Your task to perform on an android device: open app "HBO Max: Stream TV & Movies" Image 0: 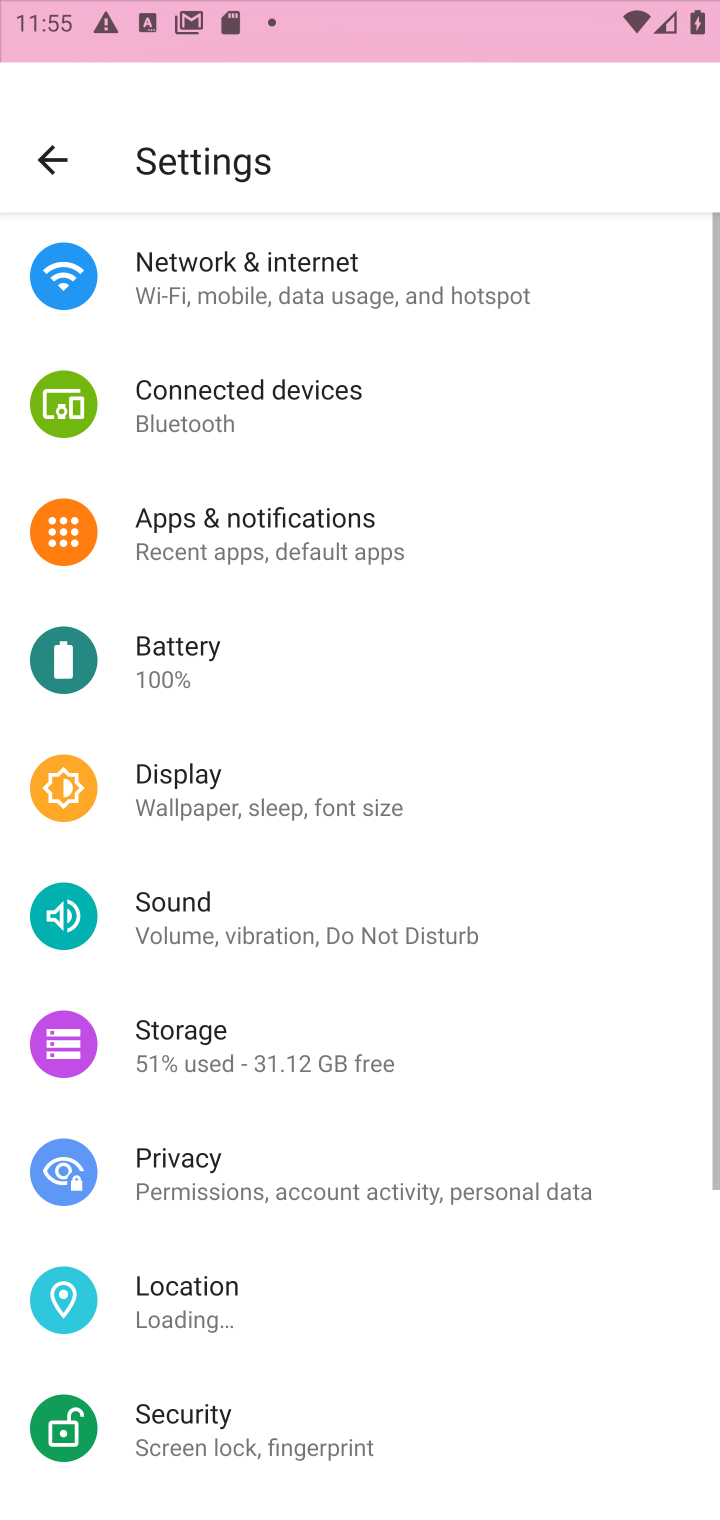
Step 0: click (549, 86)
Your task to perform on an android device: open app "HBO Max: Stream TV & Movies" Image 1: 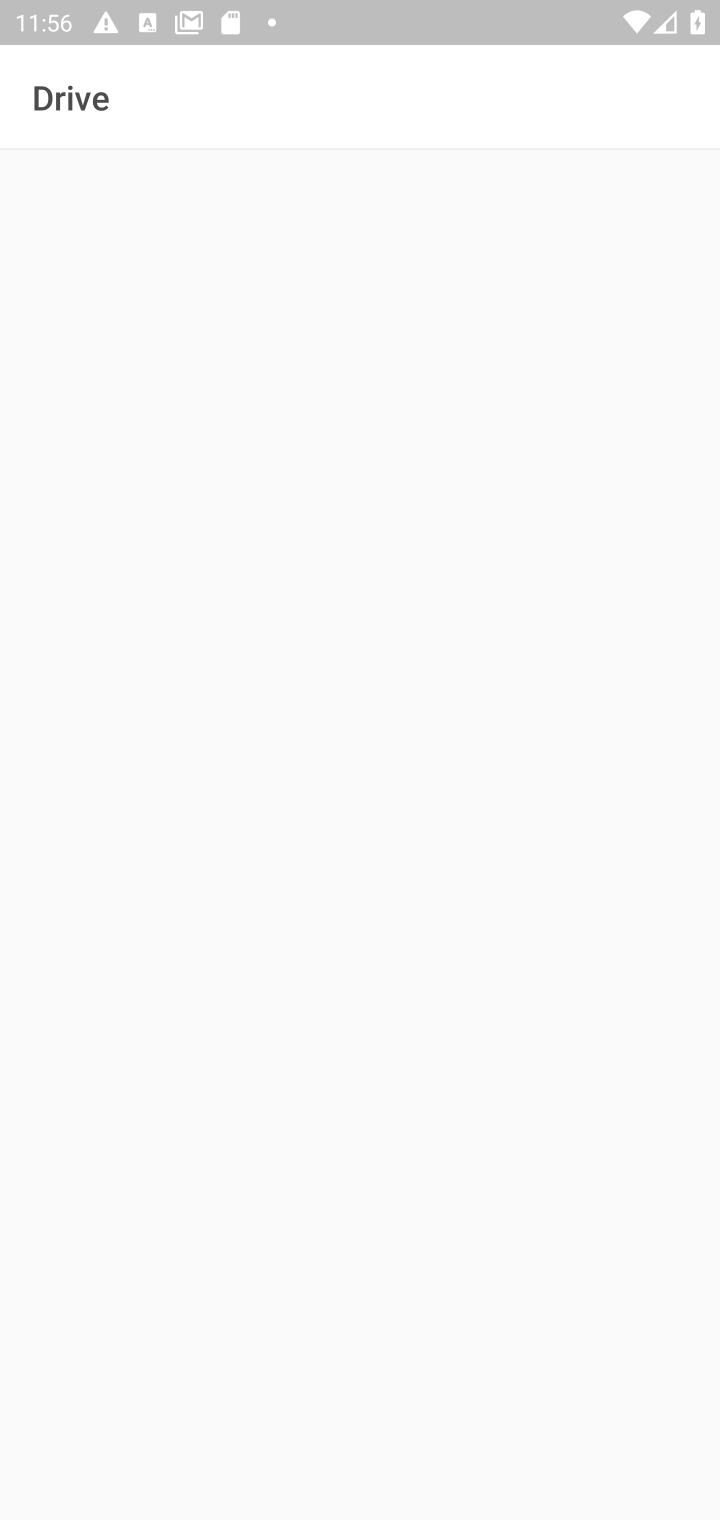
Step 1: press home button
Your task to perform on an android device: open app "HBO Max: Stream TV & Movies" Image 2: 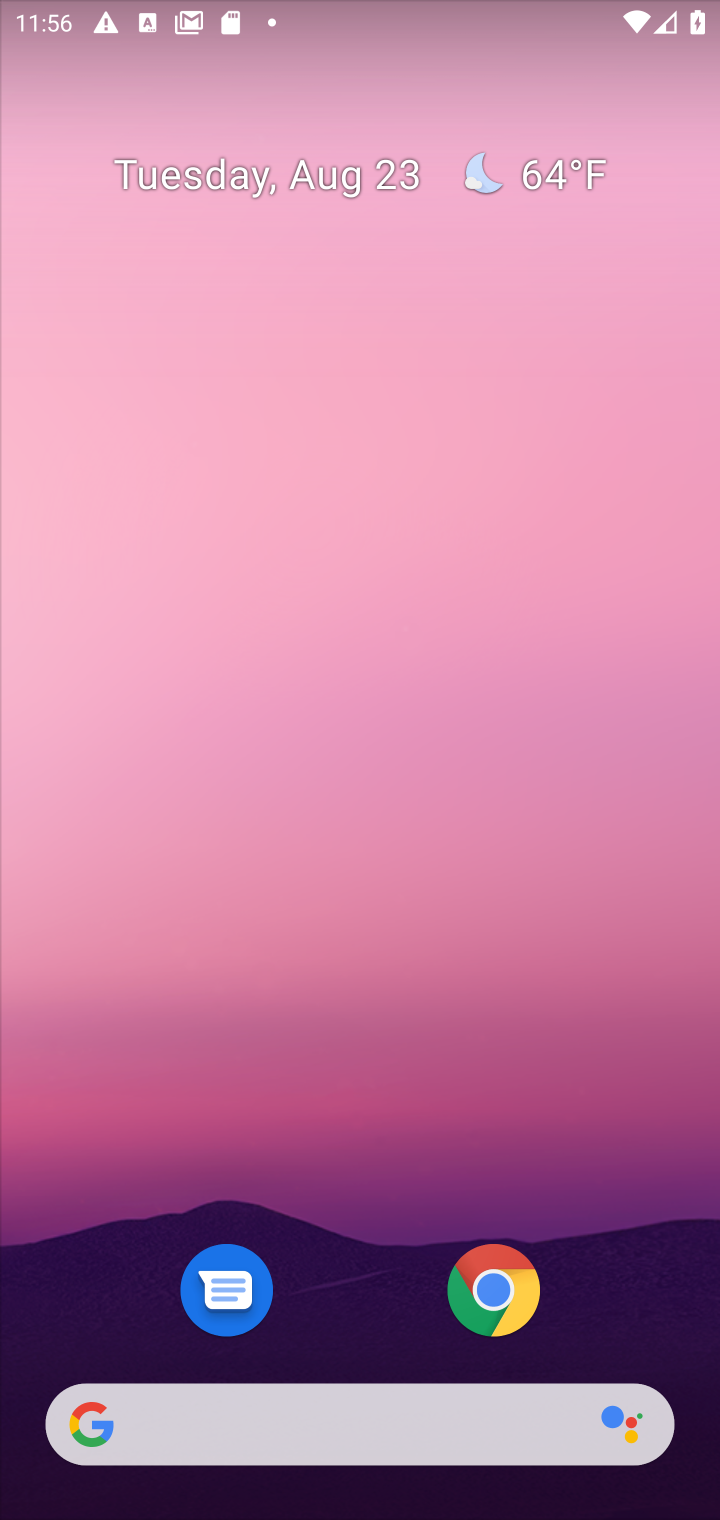
Step 2: drag from (386, 1330) to (331, 261)
Your task to perform on an android device: open app "HBO Max: Stream TV & Movies" Image 3: 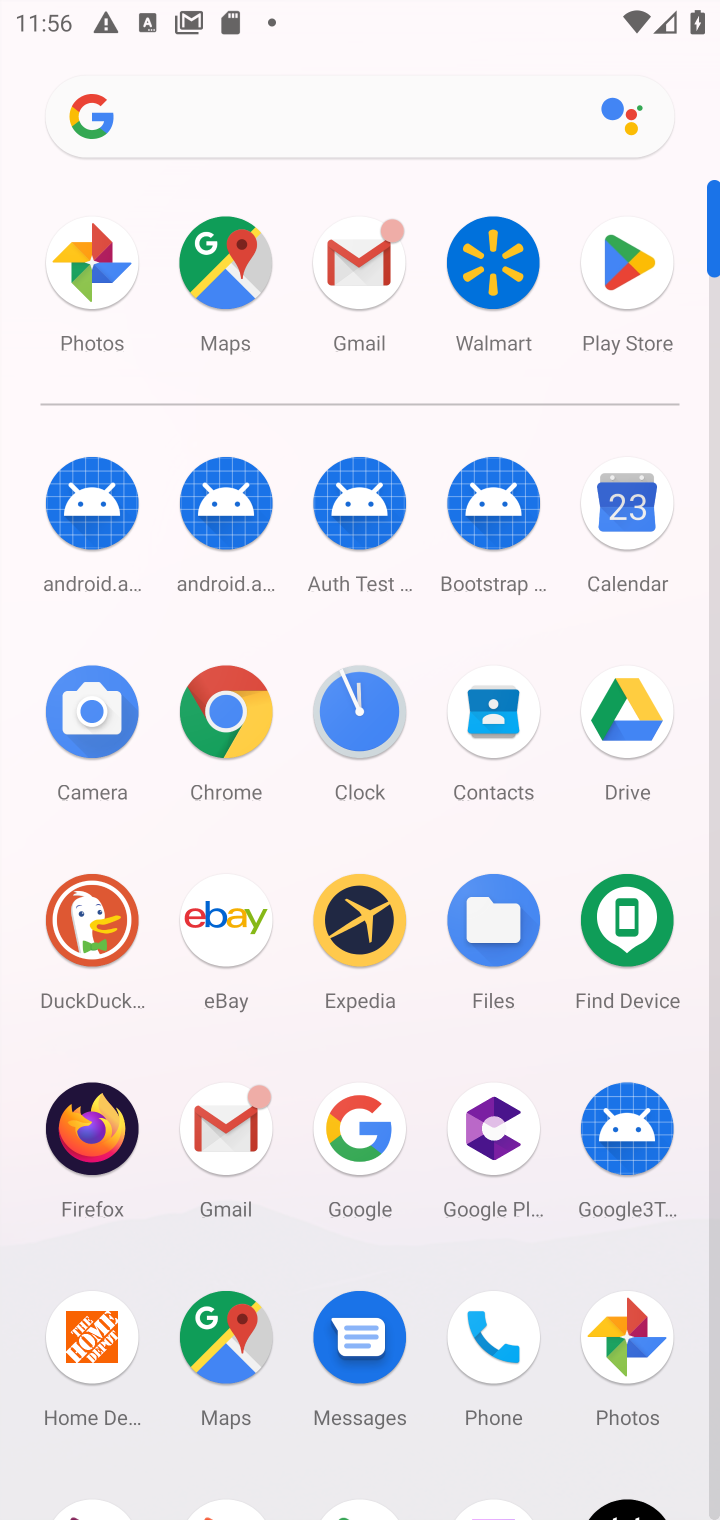
Step 3: click (618, 245)
Your task to perform on an android device: open app "HBO Max: Stream TV & Movies" Image 4: 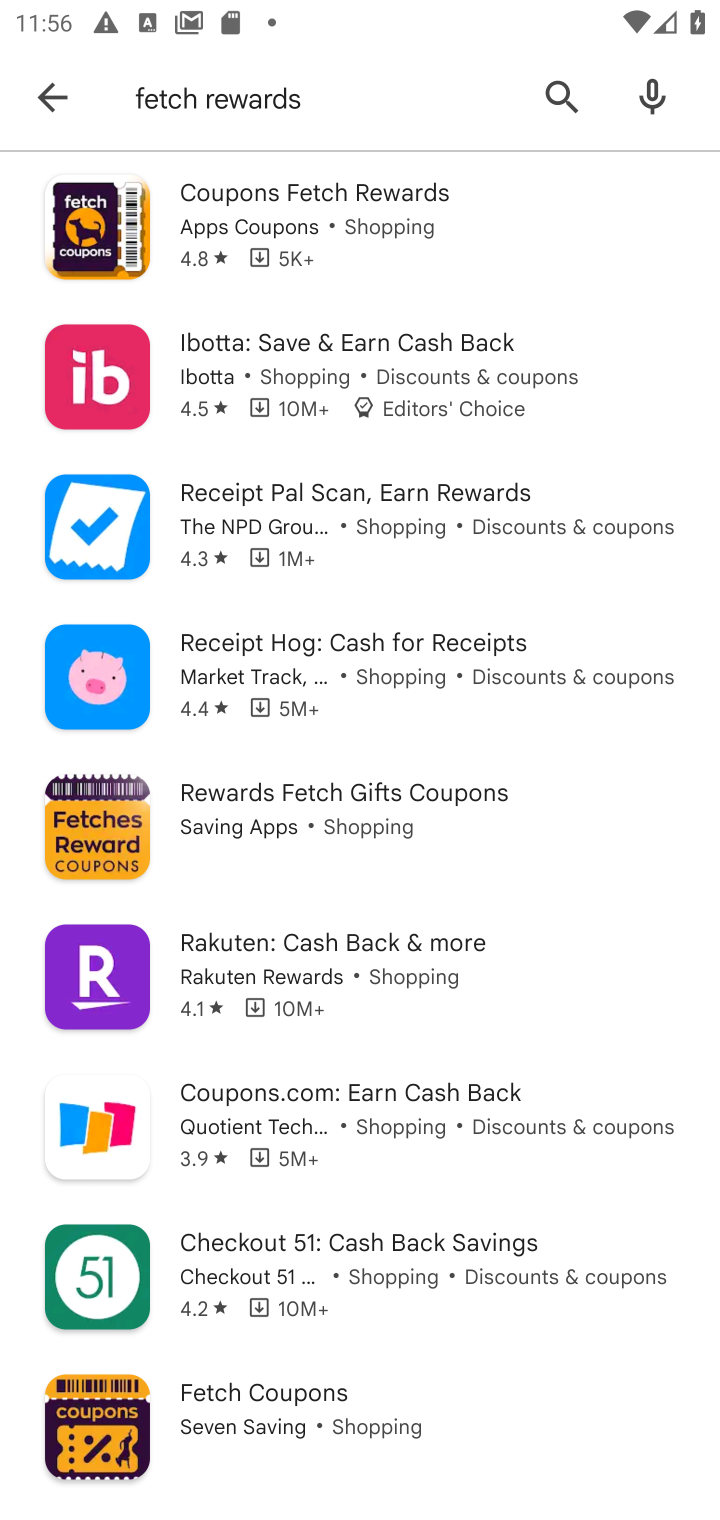
Step 4: click (552, 94)
Your task to perform on an android device: open app "HBO Max: Stream TV & Movies" Image 5: 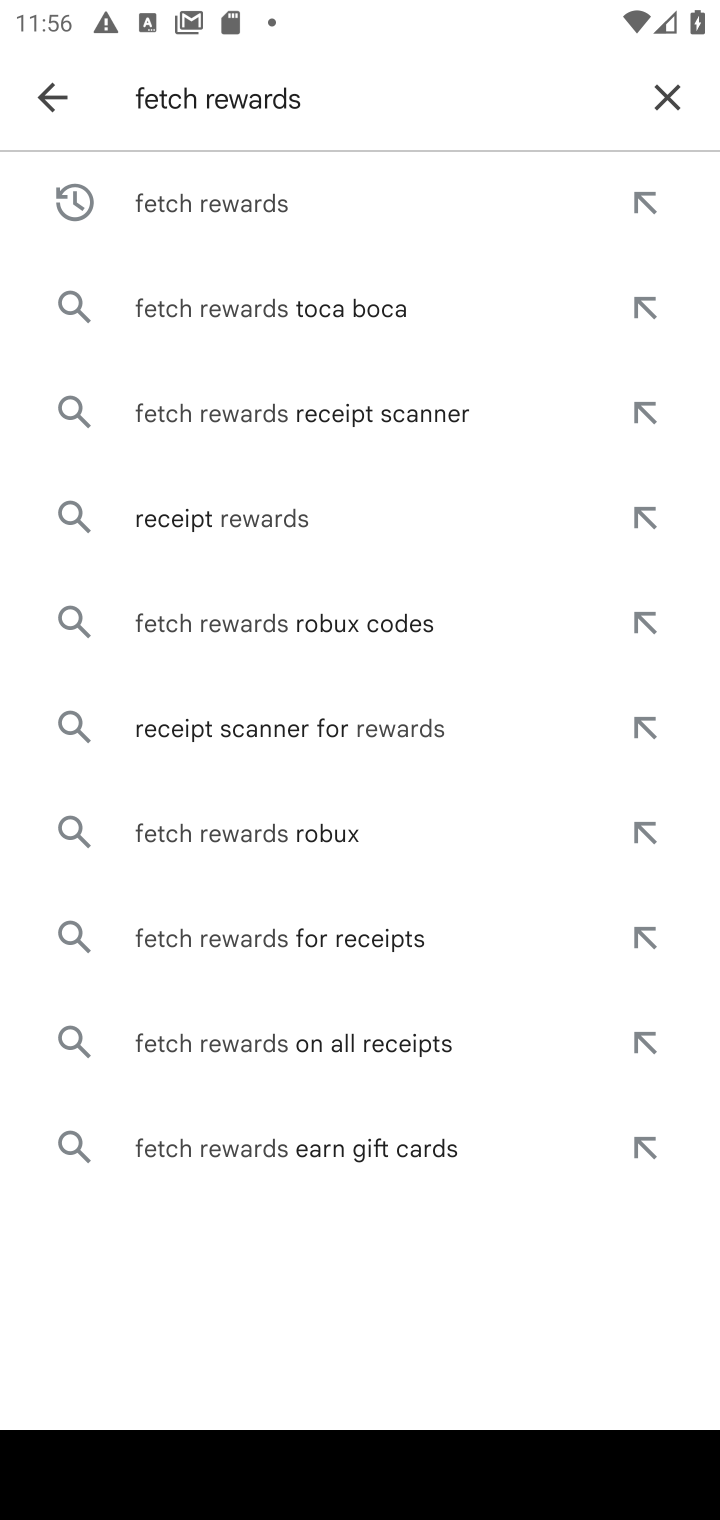
Step 5: click (657, 90)
Your task to perform on an android device: open app "HBO Max: Stream TV & Movies" Image 6: 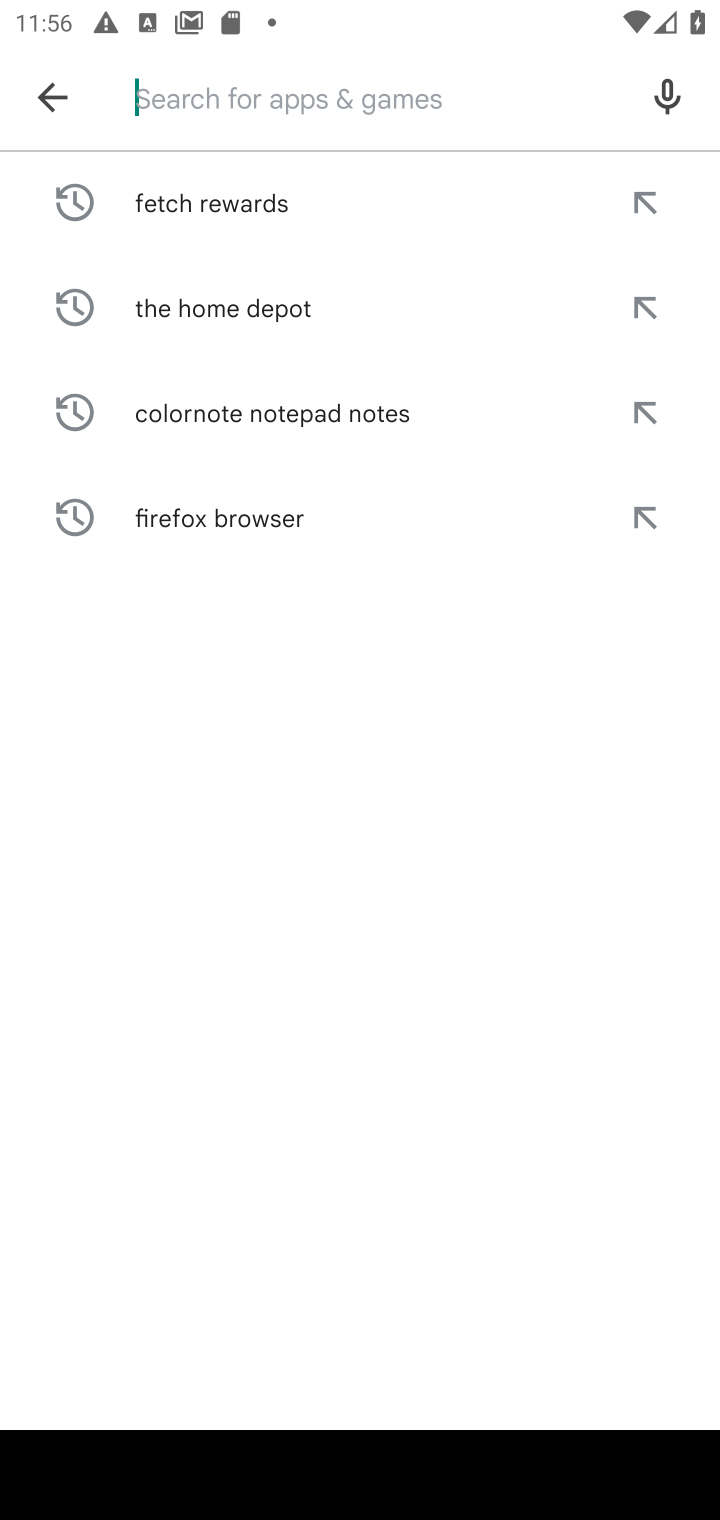
Step 6: type "HBO Max: Stream TV & Movies"
Your task to perform on an android device: open app "HBO Max: Stream TV & Movies" Image 7: 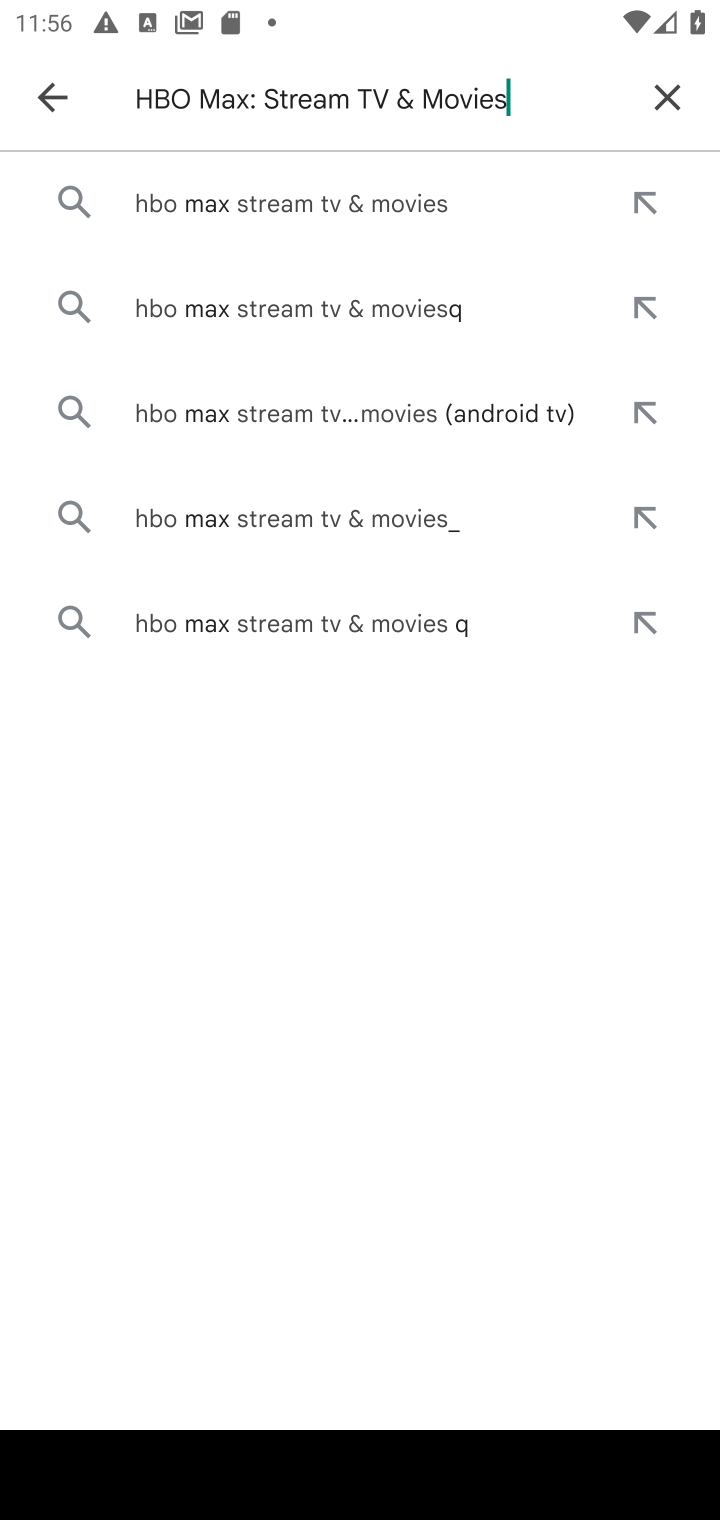
Step 7: click (243, 199)
Your task to perform on an android device: open app "HBO Max: Stream TV & Movies" Image 8: 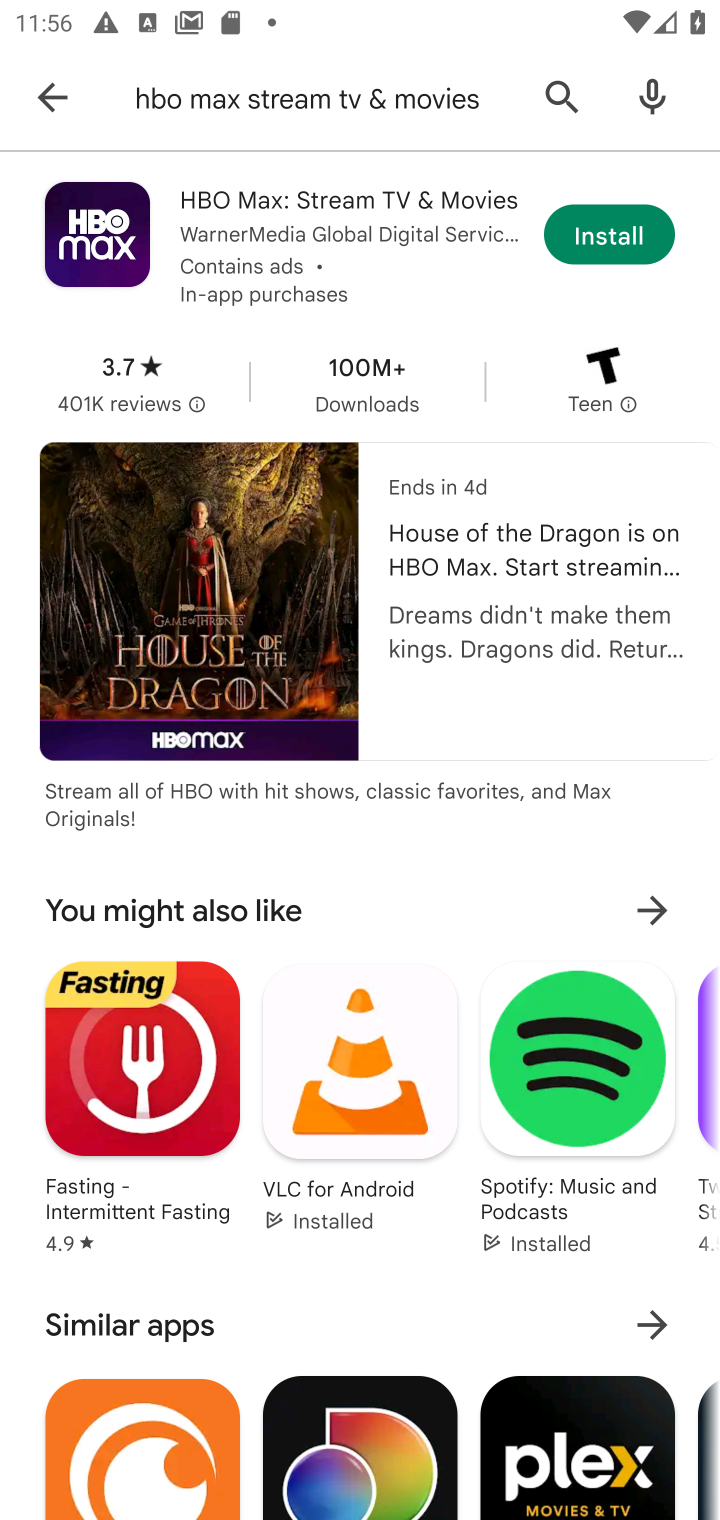
Step 8: task complete